Your task to perform on an android device: turn off data saver in the chrome app Image 0: 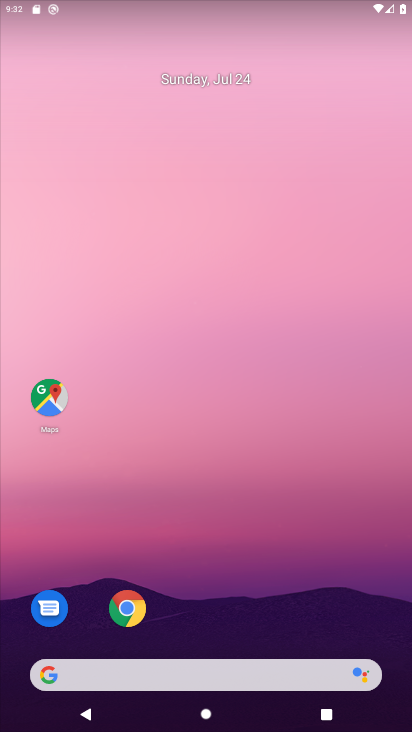
Step 0: click (126, 603)
Your task to perform on an android device: turn off data saver in the chrome app Image 1: 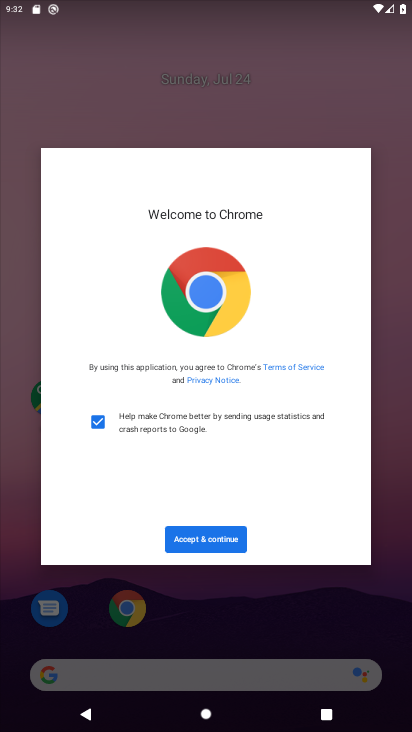
Step 1: click (215, 537)
Your task to perform on an android device: turn off data saver in the chrome app Image 2: 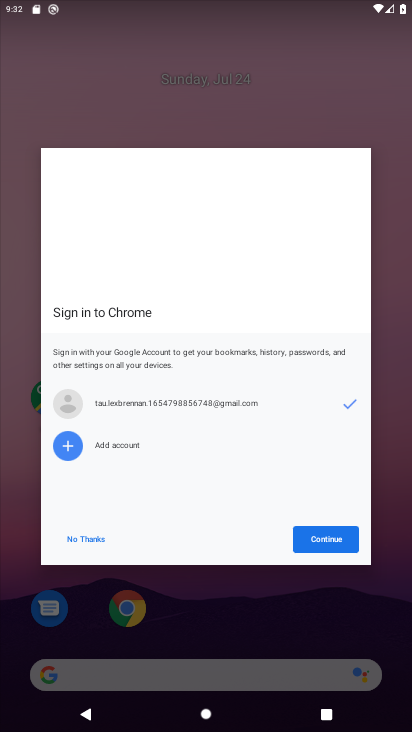
Step 2: click (318, 530)
Your task to perform on an android device: turn off data saver in the chrome app Image 3: 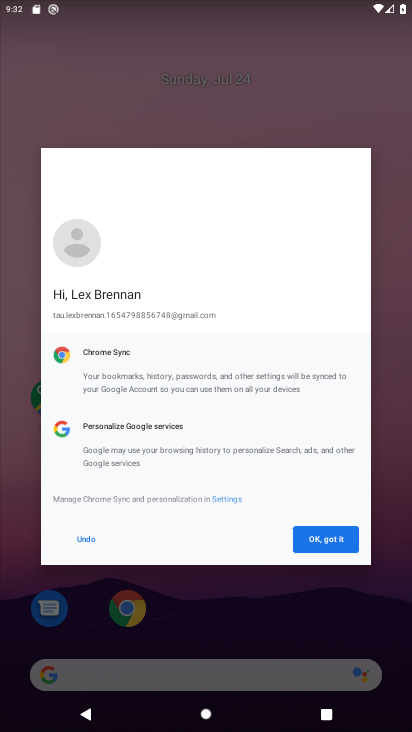
Step 3: click (318, 530)
Your task to perform on an android device: turn off data saver in the chrome app Image 4: 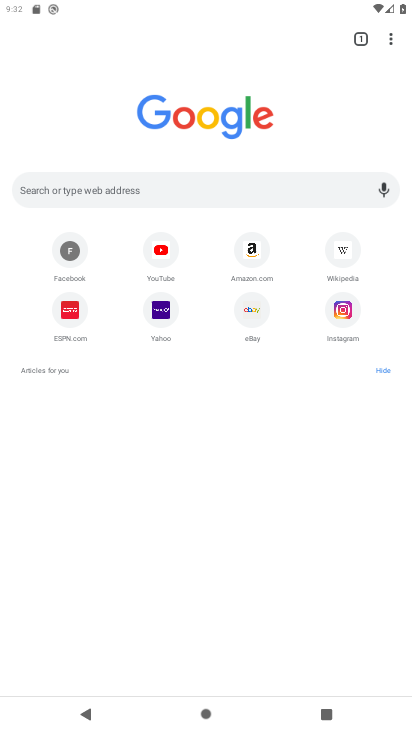
Step 4: click (392, 44)
Your task to perform on an android device: turn off data saver in the chrome app Image 5: 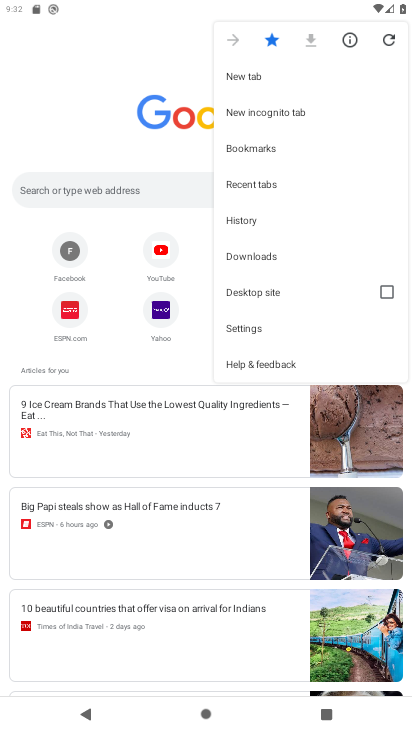
Step 5: click (256, 334)
Your task to perform on an android device: turn off data saver in the chrome app Image 6: 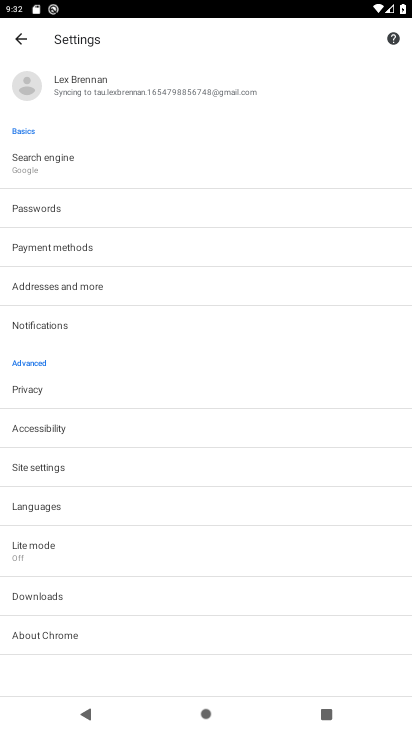
Step 6: click (69, 561)
Your task to perform on an android device: turn off data saver in the chrome app Image 7: 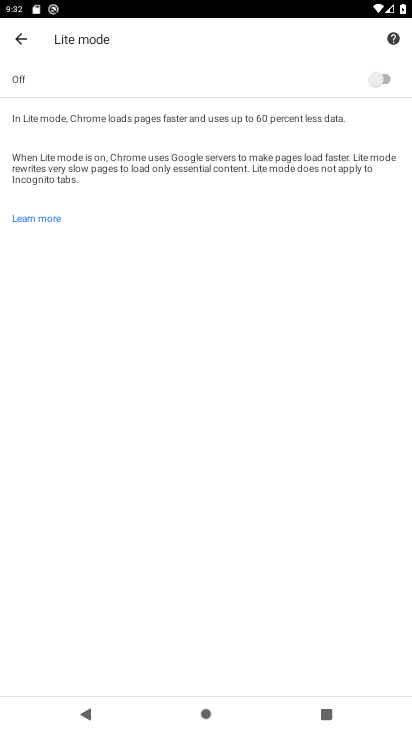
Step 7: task complete